Your task to perform on an android device: open app "WhatsApp Messenger" Image 0: 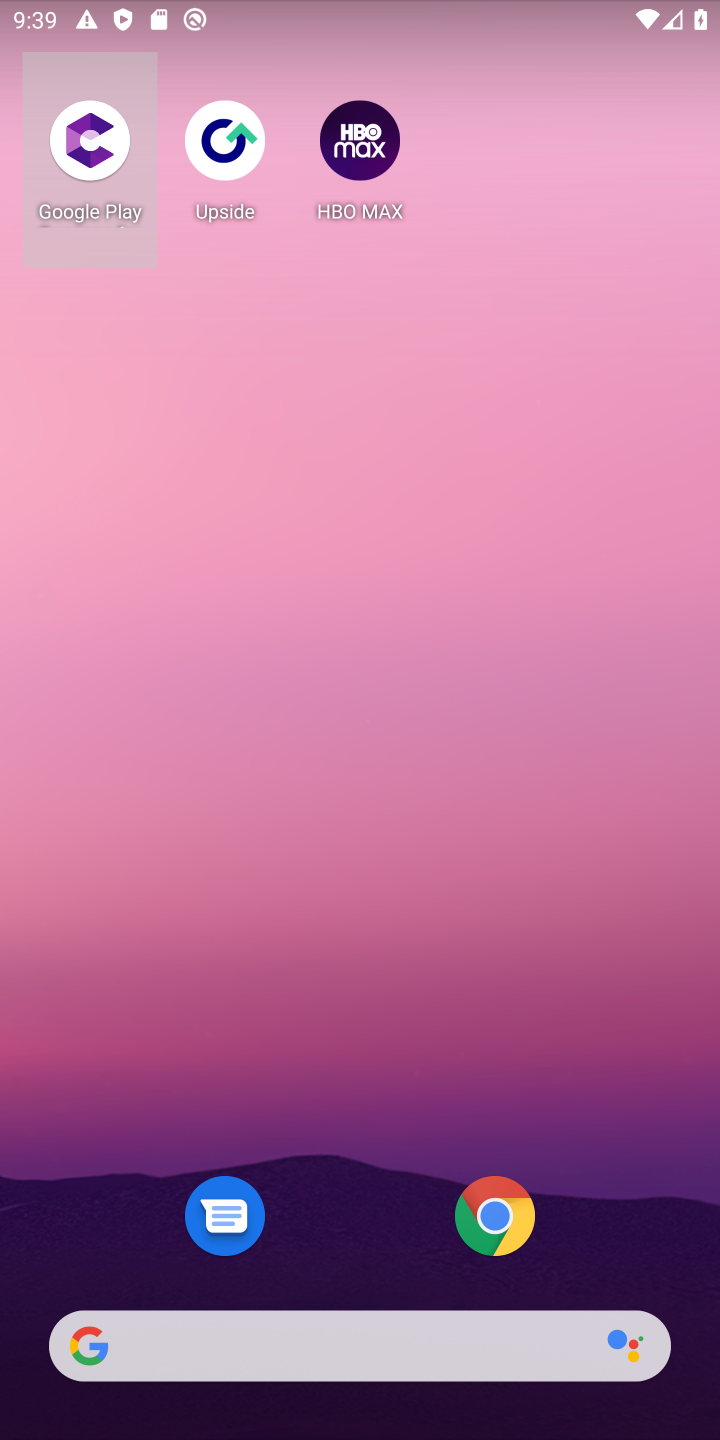
Step 0: drag from (395, 1269) to (239, 70)
Your task to perform on an android device: open app "WhatsApp Messenger" Image 1: 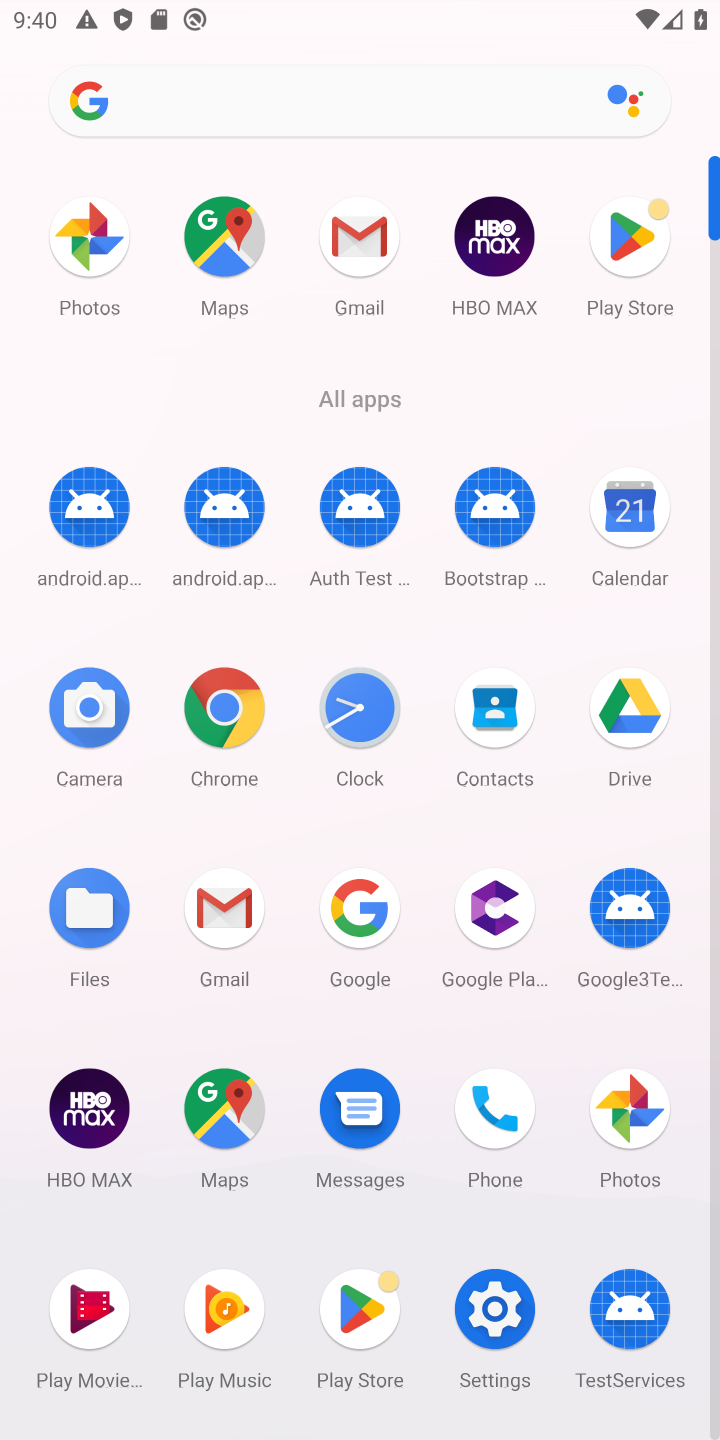
Step 1: click (636, 238)
Your task to perform on an android device: open app "WhatsApp Messenger" Image 2: 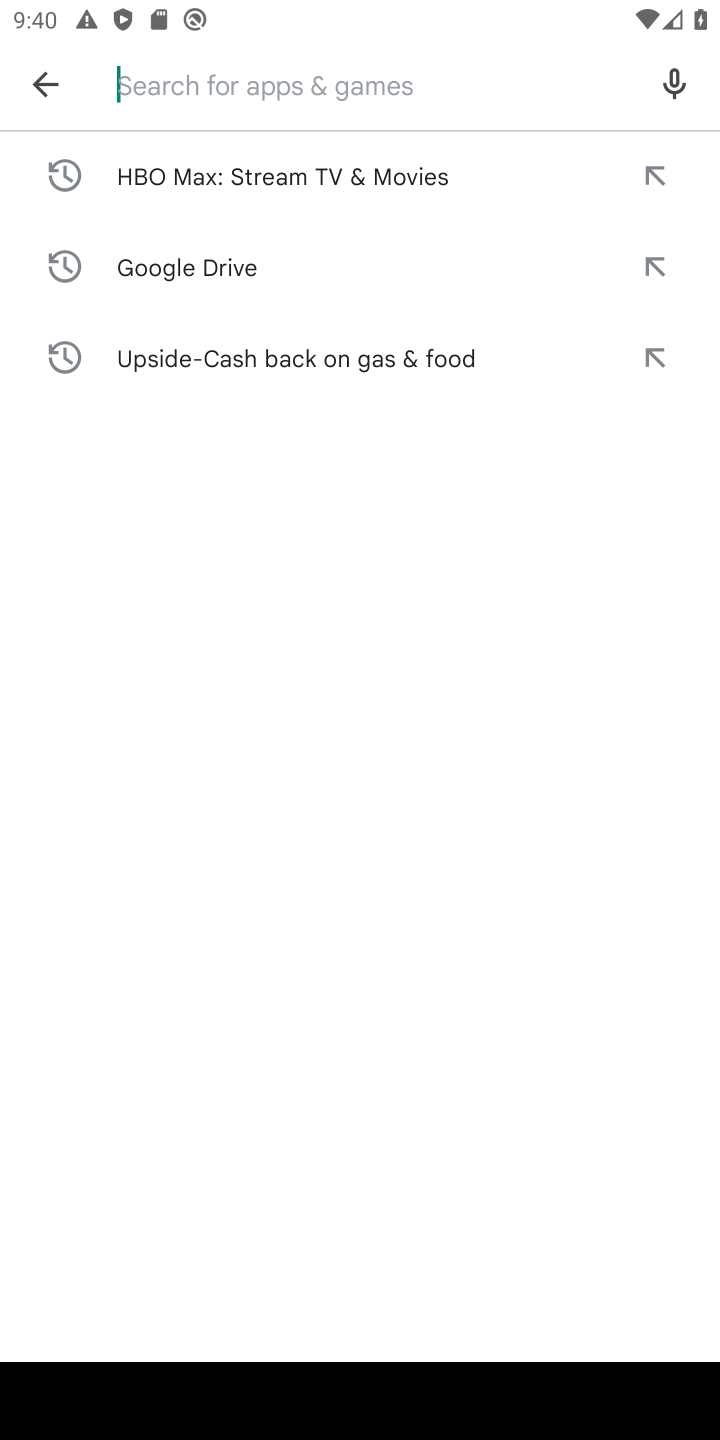
Step 2: type "WhatsApp Messenger"
Your task to perform on an android device: open app "WhatsApp Messenger" Image 3: 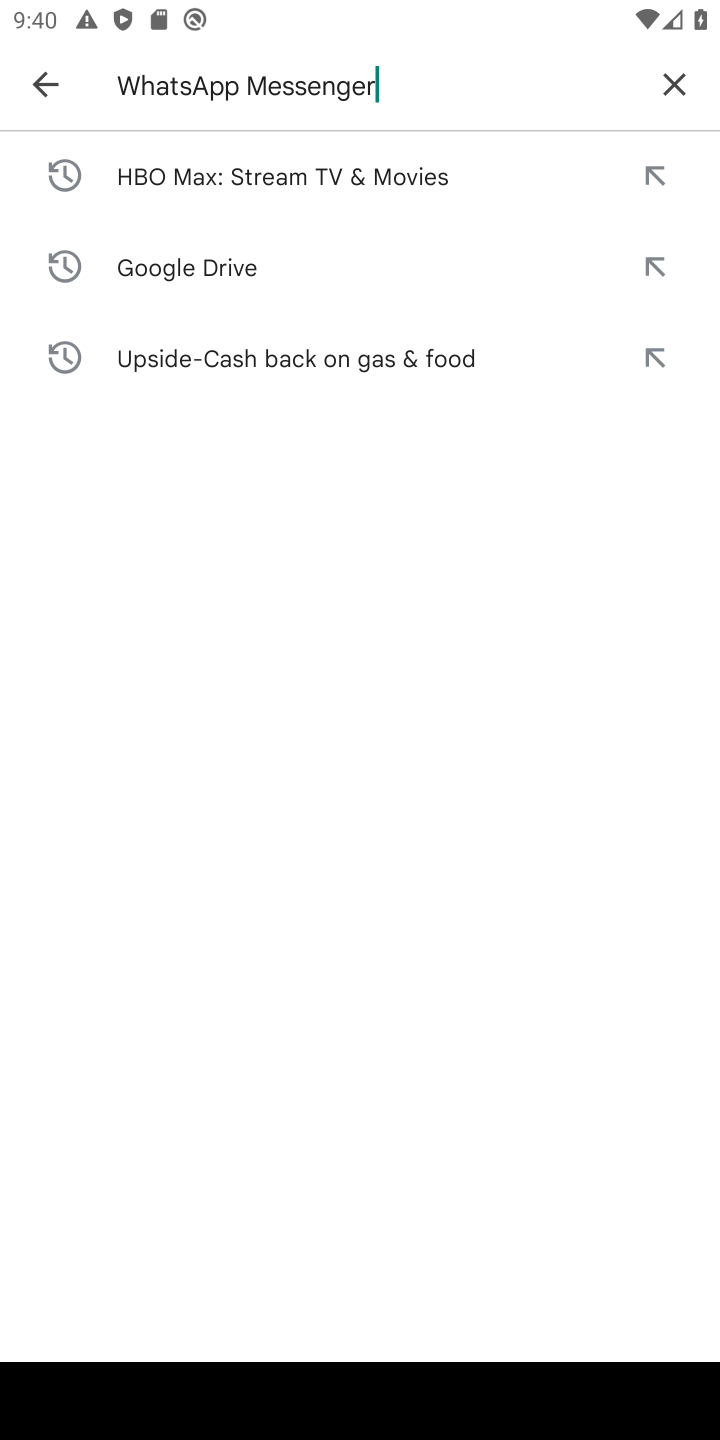
Step 3: press enter
Your task to perform on an android device: open app "WhatsApp Messenger" Image 4: 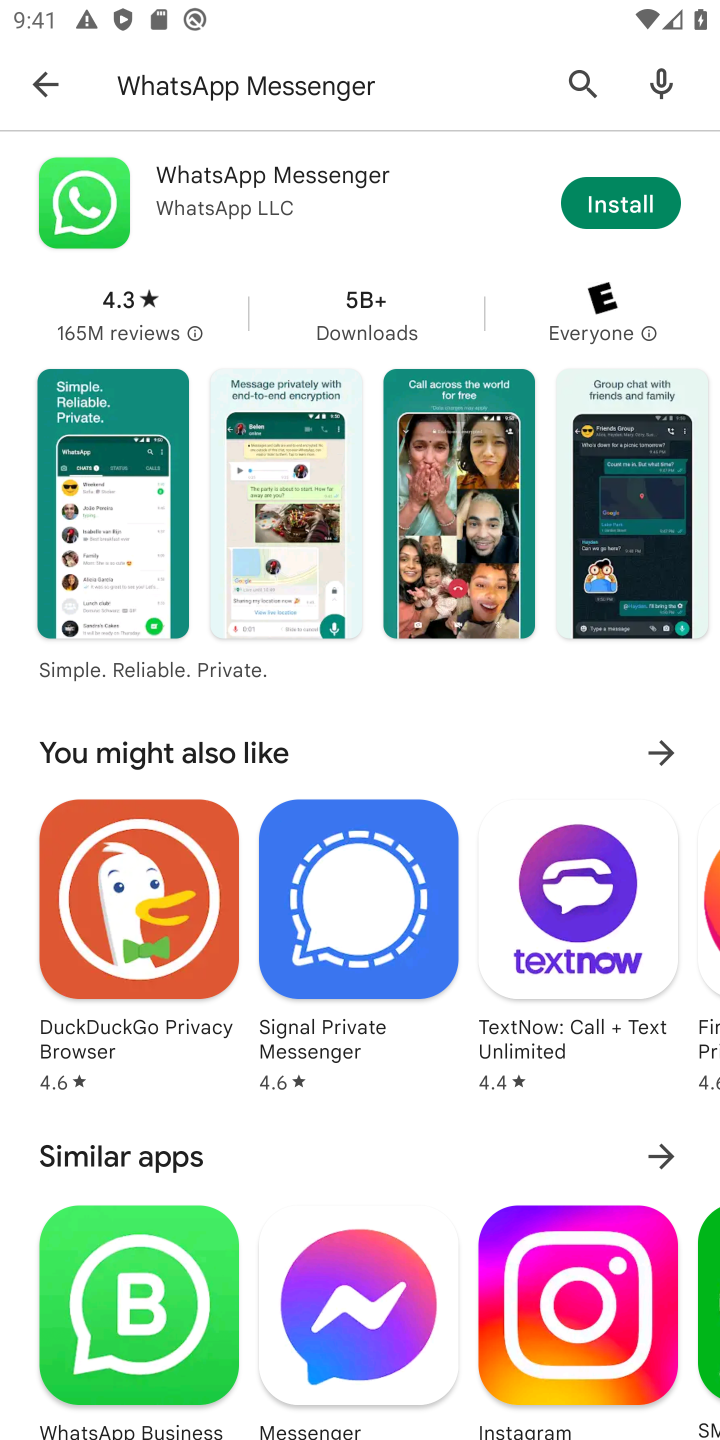
Step 4: click (589, 197)
Your task to perform on an android device: open app "WhatsApp Messenger" Image 5: 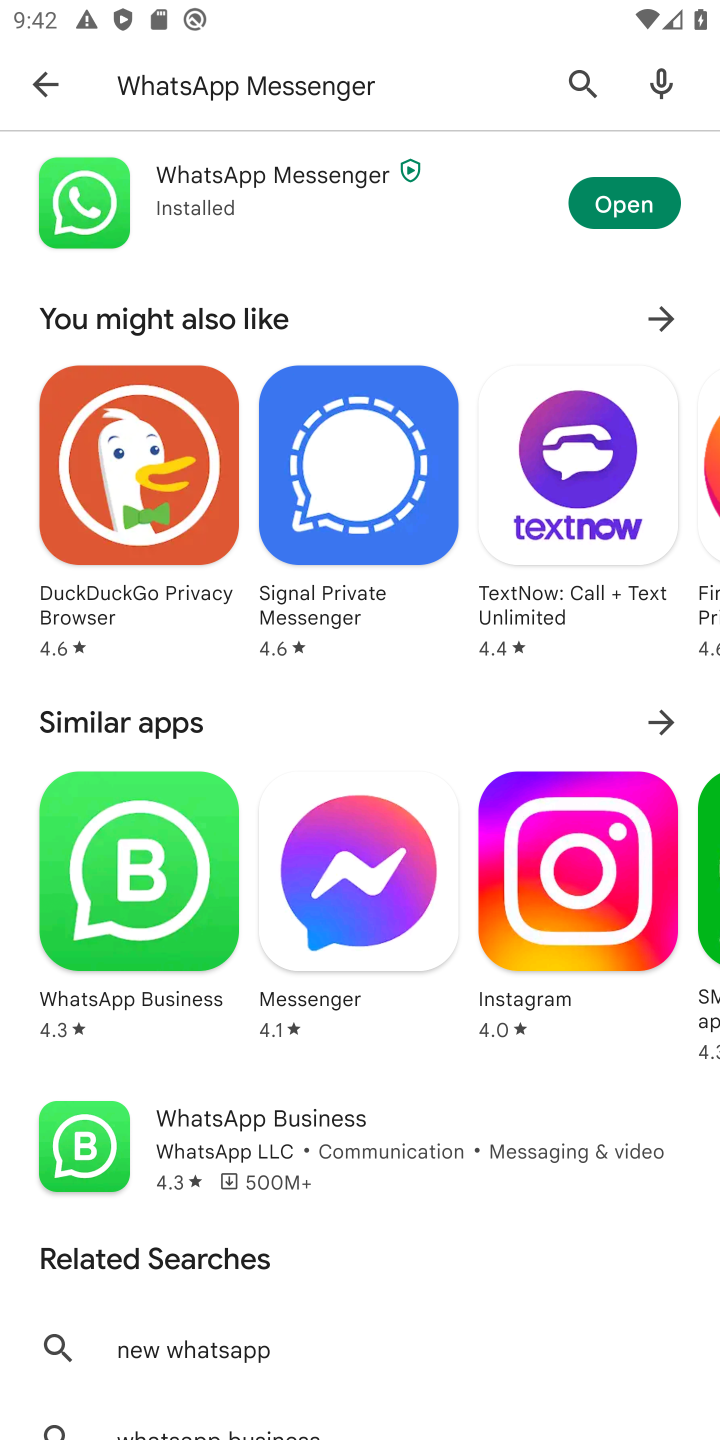
Step 5: click (604, 215)
Your task to perform on an android device: open app "WhatsApp Messenger" Image 6: 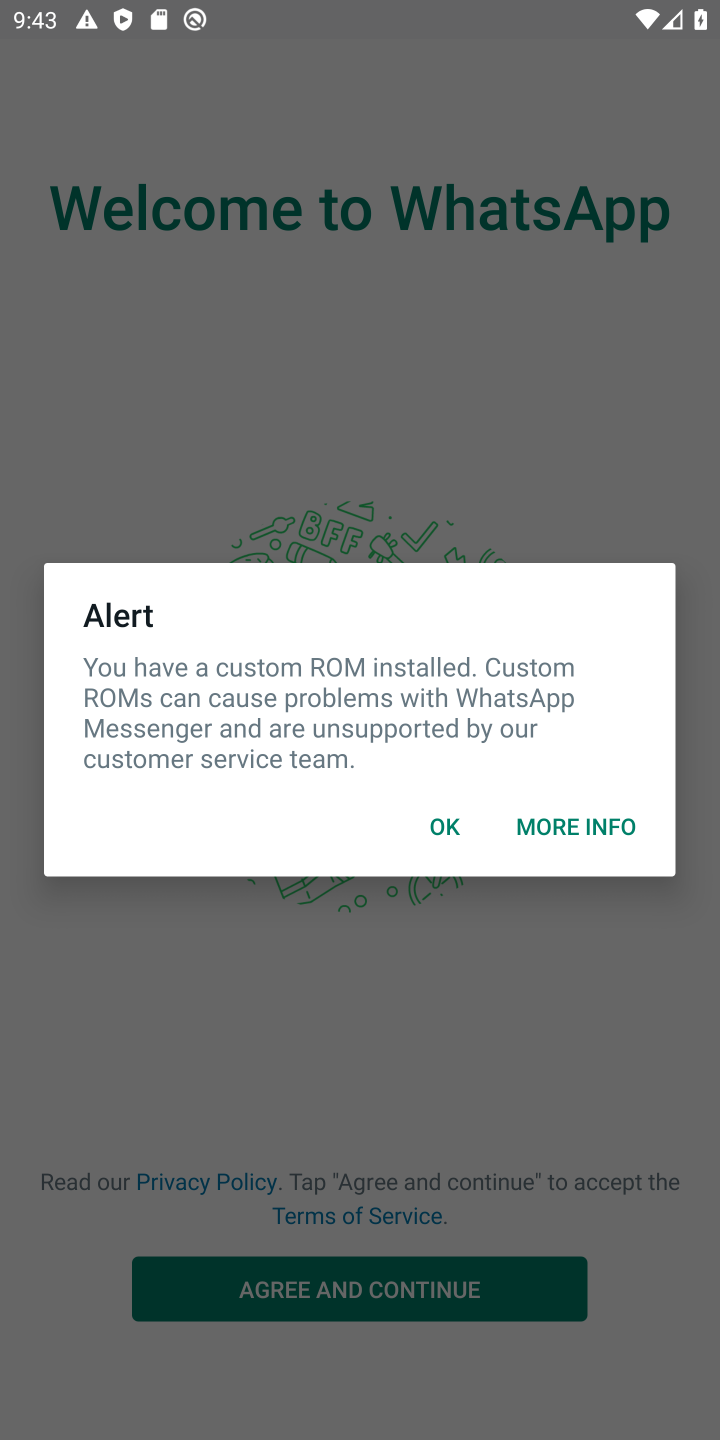
Step 6: task complete